Your task to perform on an android device: change timer sound Image 0: 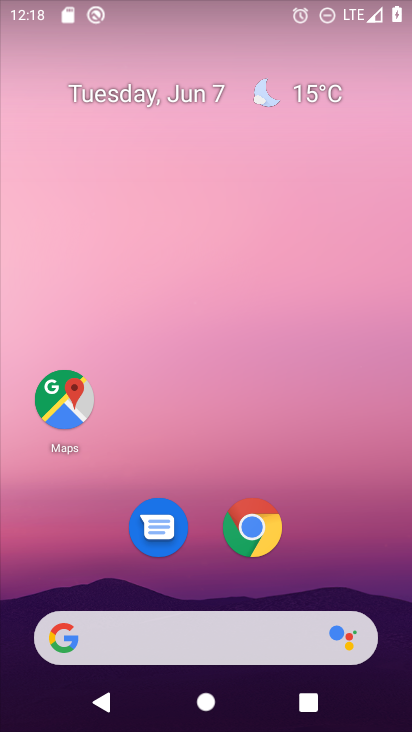
Step 0: drag from (344, 546) to (326, 108)
Your task to perform on an android device: change timer sound Image 1: 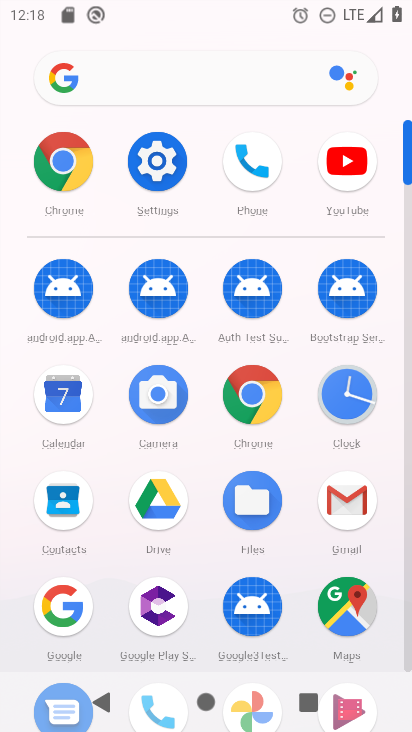
Step 1: click (359, 392)
Your task to perform on an android device: change timer sound Image 2: 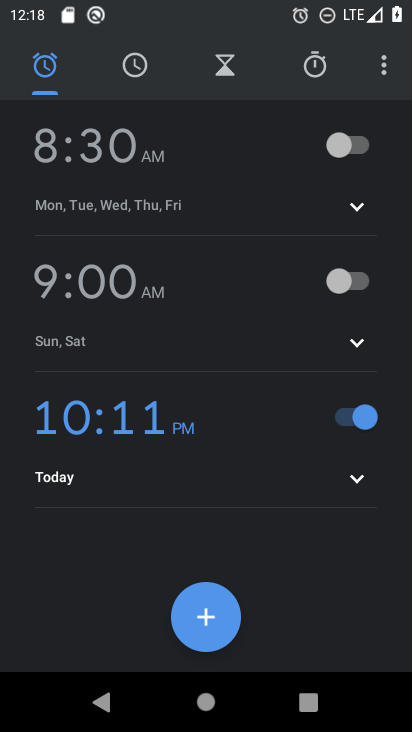
Step 2: click (382, 76)
Your task to perform on an android device: change timer sound Image 3: 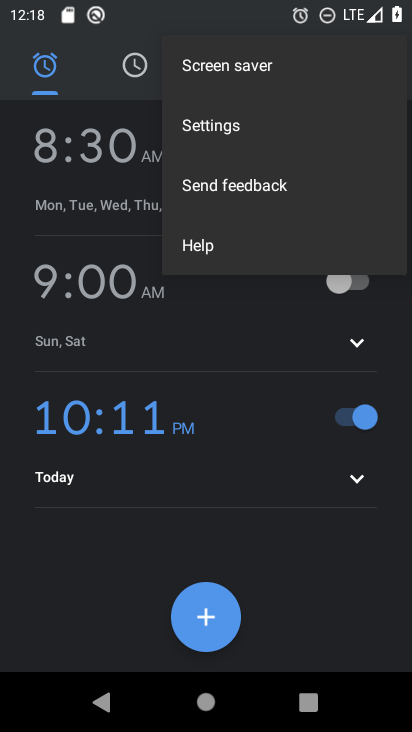
Step 3: click (264, 130)
Your task to perform on an android device: change timer sound Image 4: 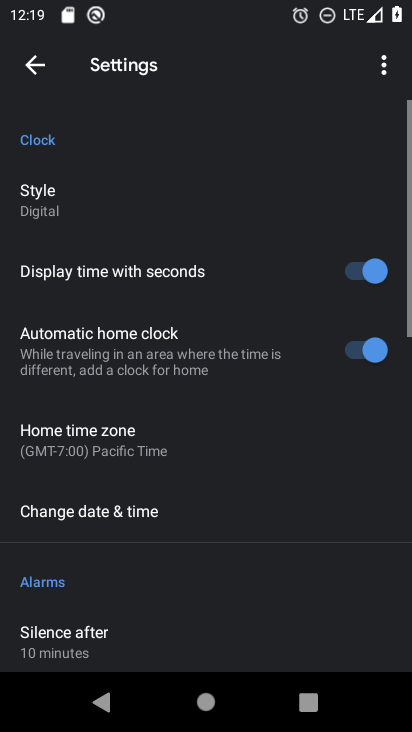
Step 4: drag from (298, 438) to (283, 301)
Your task to perform on an android device: change timer sound Image 5: 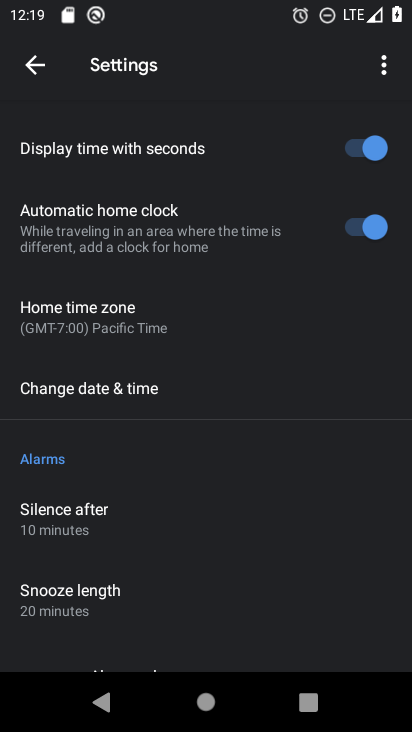
Step 5: drag from (293, 479) to (294, 342)
Your task to perform on an android device: change timer sound Image 6: 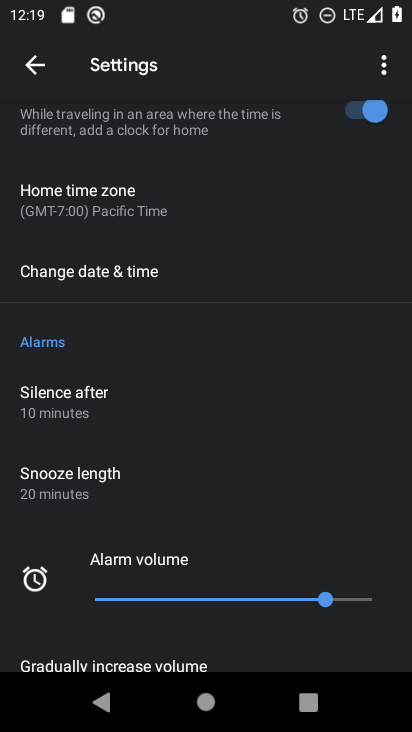
Step 6: drag from (302, 478) to (307, 380)
Your task to perform on an android device: change timer sound Image 7: 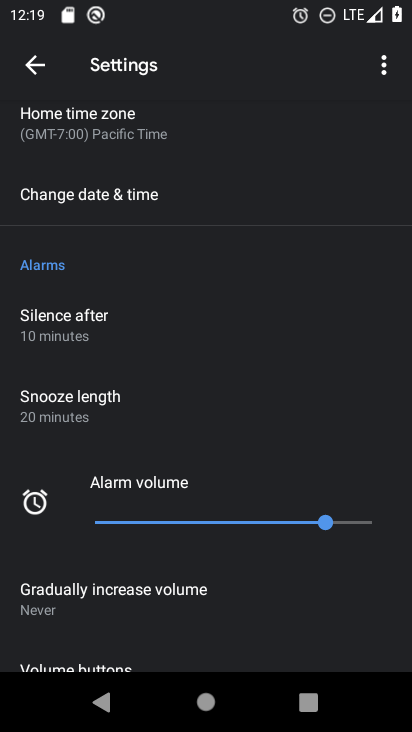
Step 7: drag from (347, 569) to (347, 414)
Your task to perform on an android device: change timer sound Image 8: 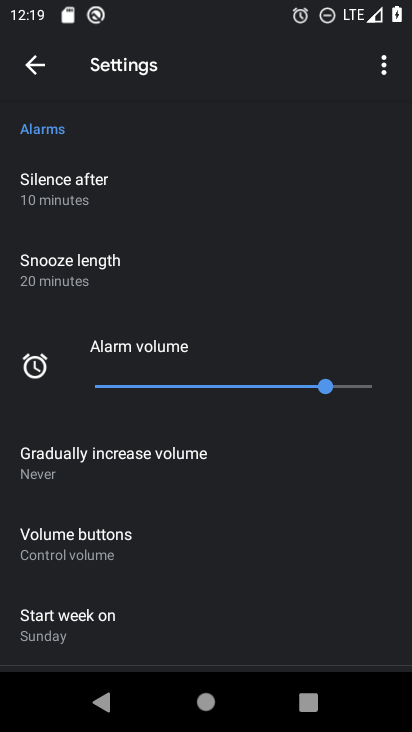
Step 8: drag from (366, 537) to (367, 412)
Your task to perform on an android device: change timer sound Image 9: 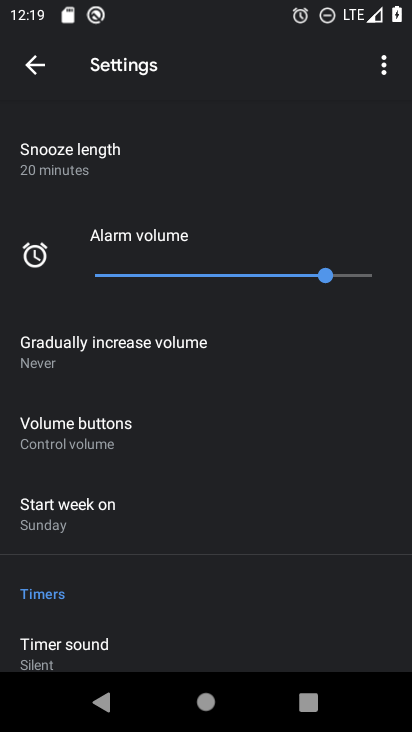
Step 9: drag from (335, 569) to (332, 380)
Your task to perform on an android device: change timer sound Image 10: 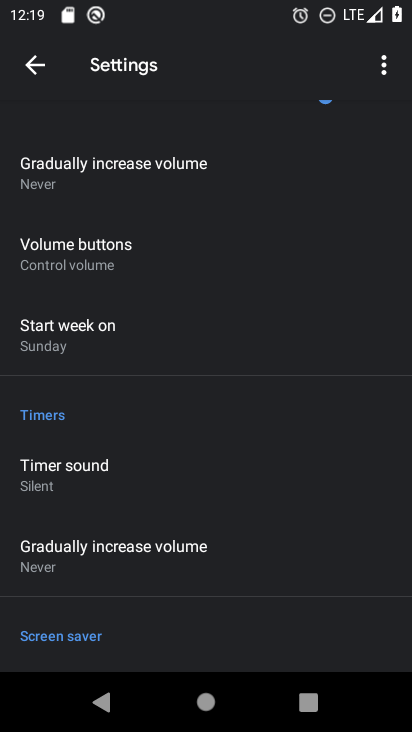
Step 10: drag from (328, 509) to (331, 349)
Your task to perform on an android device: change timer sound Image 11: 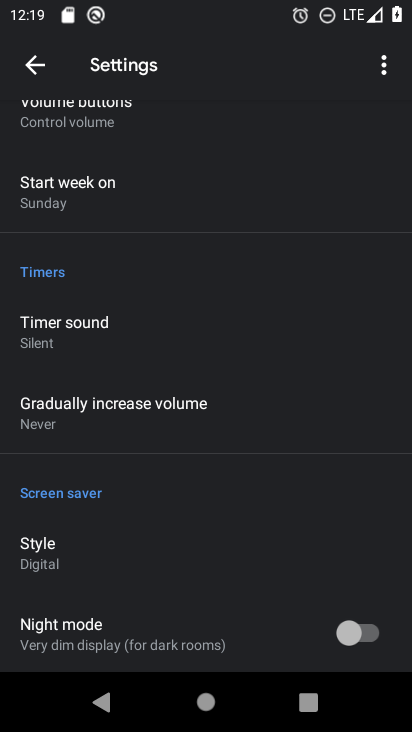
Step 11: drag from (311, 510) to (310, 332)
Your task to perform on an android device: change timer sound Image 12: 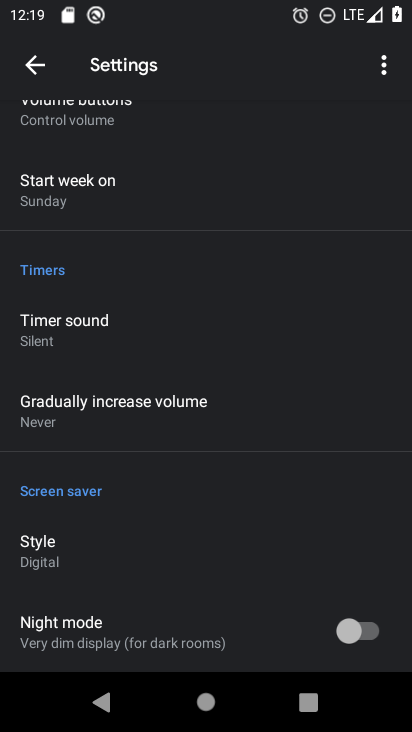
Step 12: drag from (294, 281) to (288, 388)
Your task to perform on an android device: change timer sound Image 13: 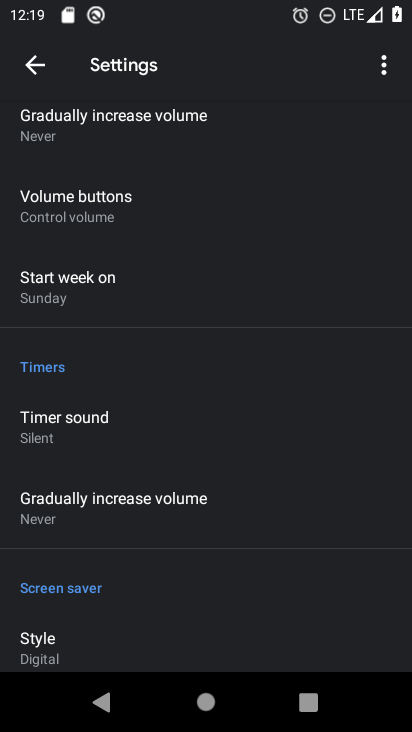
Step 13: click (107, 443)
Your task to perform on an android device: change timer sound Image 14: 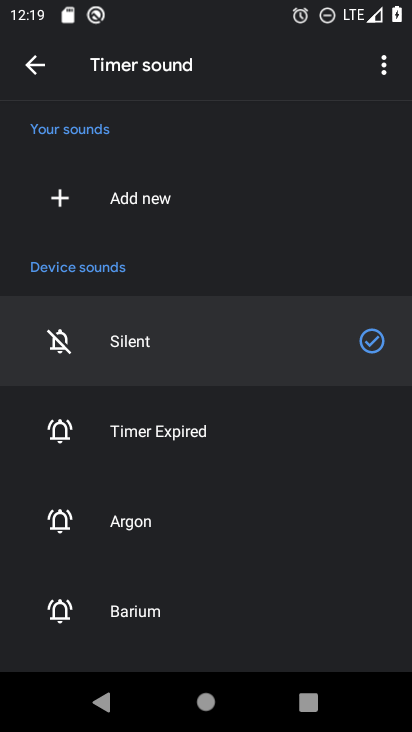
Step 14: click (150, 433)
Your task to perform on an android device: change timer sound Image 15: 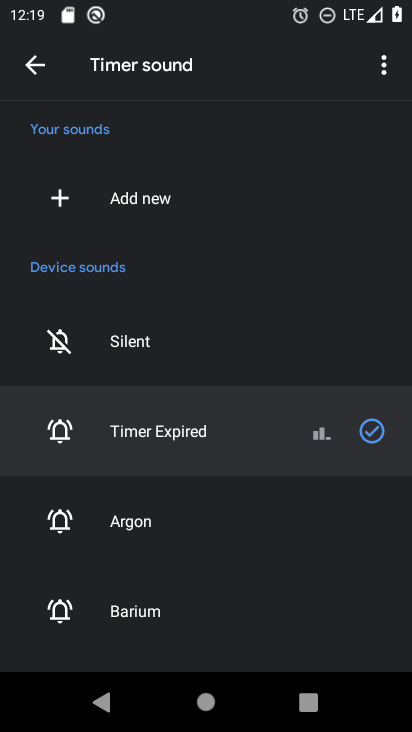
Step 15: task complete